Your task to perform on an android device: Open calendar and show me the third week of next month Image 0: 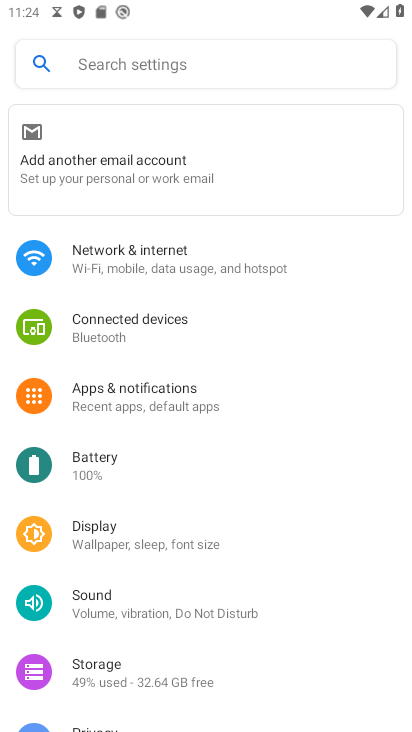
Step 0: press home button
Your task to perform on an android device: Open calendar and show me the third week of next month Image 1: 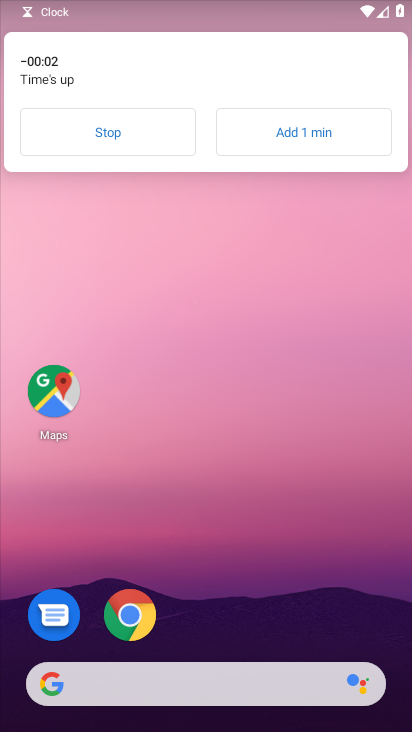
Step 1: click (57, 143)
Your task to perform on an android device: Open calendar and show me the third week of next month Image 2: 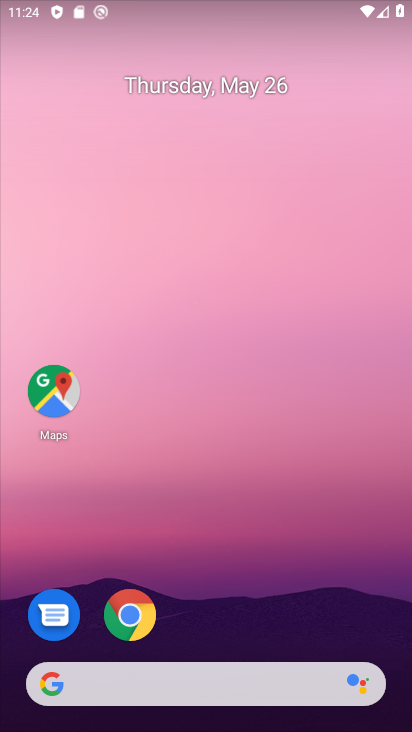
Step 2: drag from (313, 567) to (110, 0)
Your task to perform on an android device: Open calendar and show me the third week of next month Image 3: 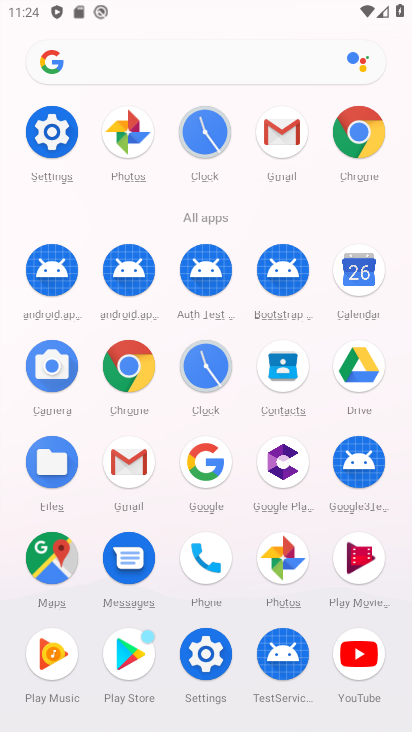
Step 3: click (355, 285)
Your task to perform on an android device: Open calendar and show me the third week of next month Image 4: 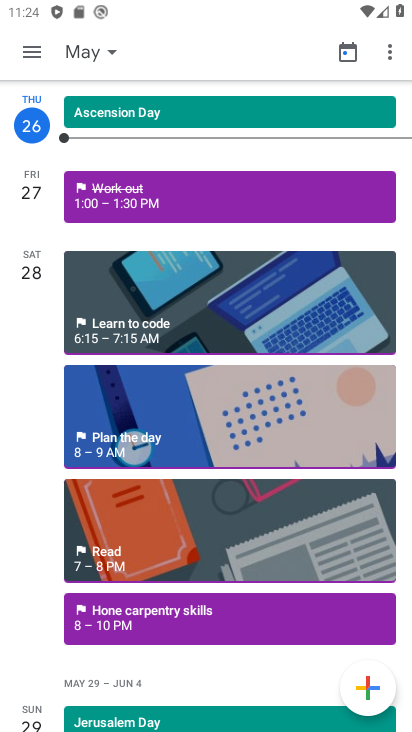
Step 4: click (93, 50)
Your task to perform on an android device: Open calendar and show me the third week of next month Image 5: 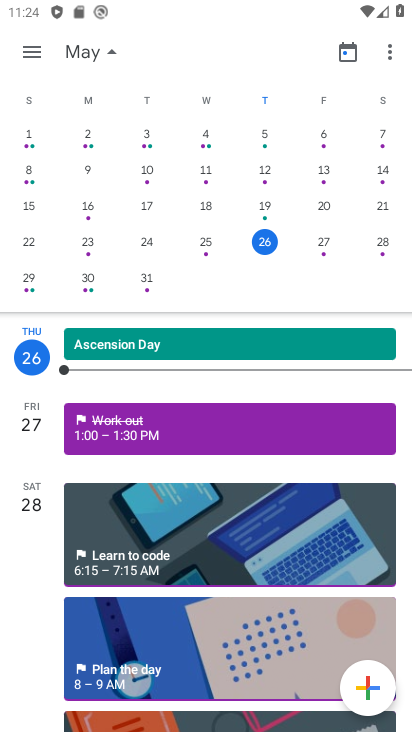
Step 5: drag from (404, 188) to (20, 245)
Your task to perform on an android device: Open calendar and show me the third week of next month Image 6: 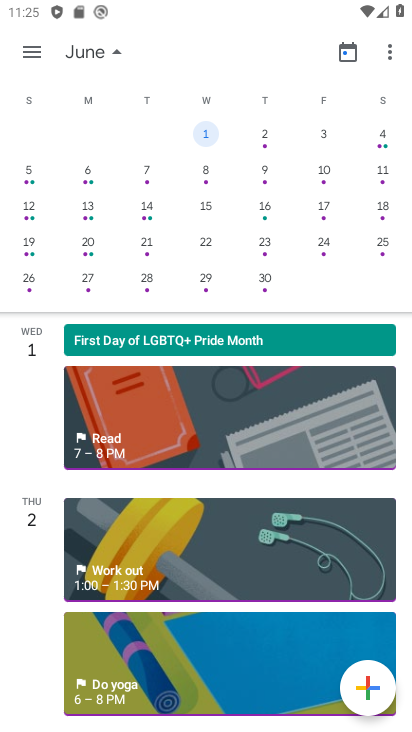
Step 6: click (201, 209)
Your task to perform on an android device: Open calendar and show me the third week of next month Image 7: 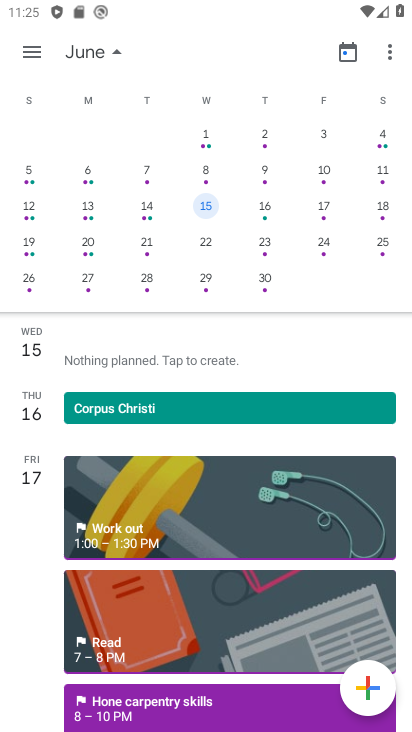
Step 7: task complete